Your task to perform on an android device: Search for seafood restaurants on Google Maps Image 0: 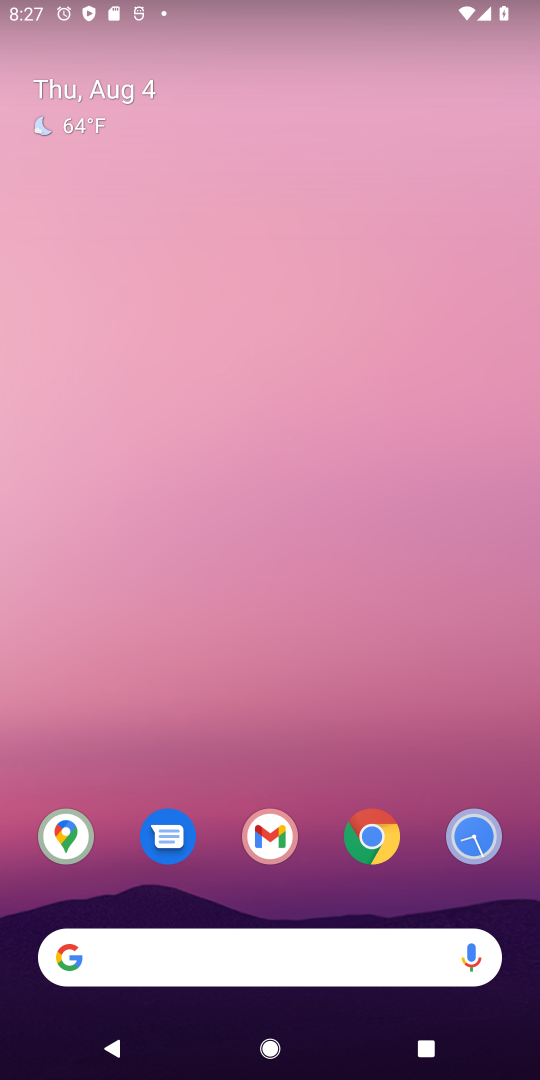
Step 0: click (69, 830)
Your task to perform on an android device: Search for seafood restaurants on Google Maps Image 1: 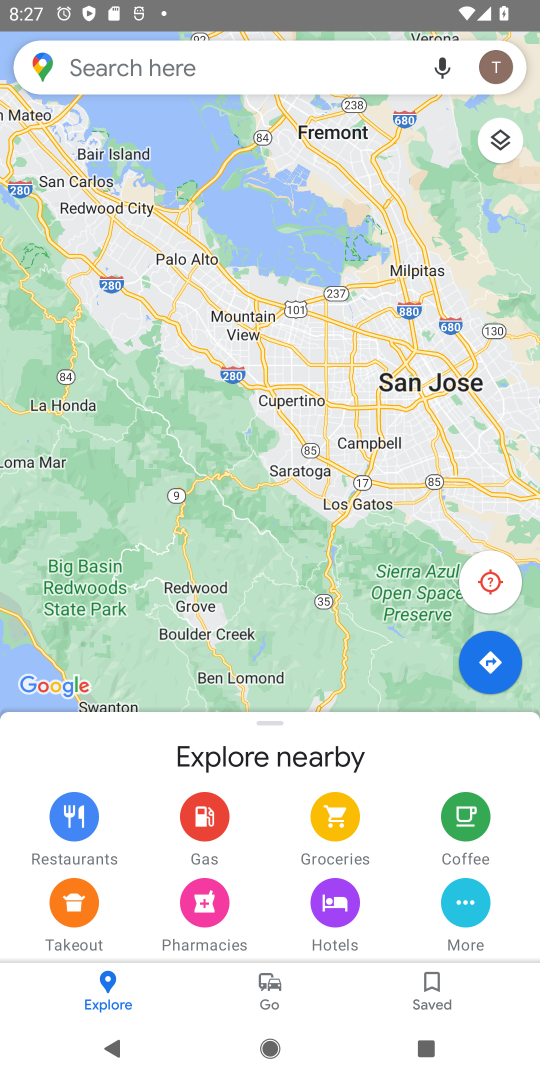
Step 1: click (162, 78)
Your task to perform on an android device: Search for seafood restaurants on Google Maps Image 2: 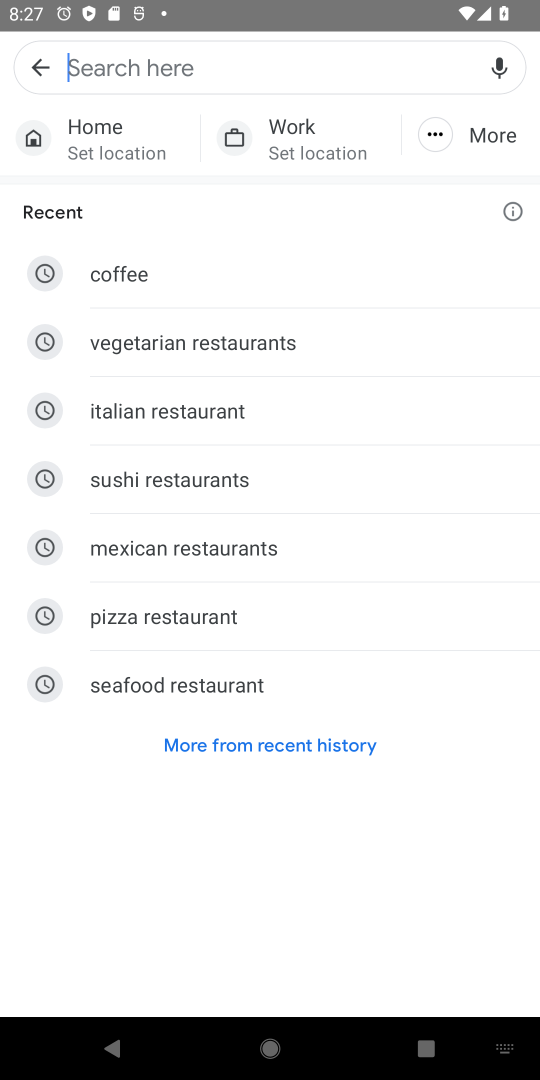
Step 2: click (119, 691)
Your task to perform on an android device: Search for seafood restaurants on Google Maps Image 3: 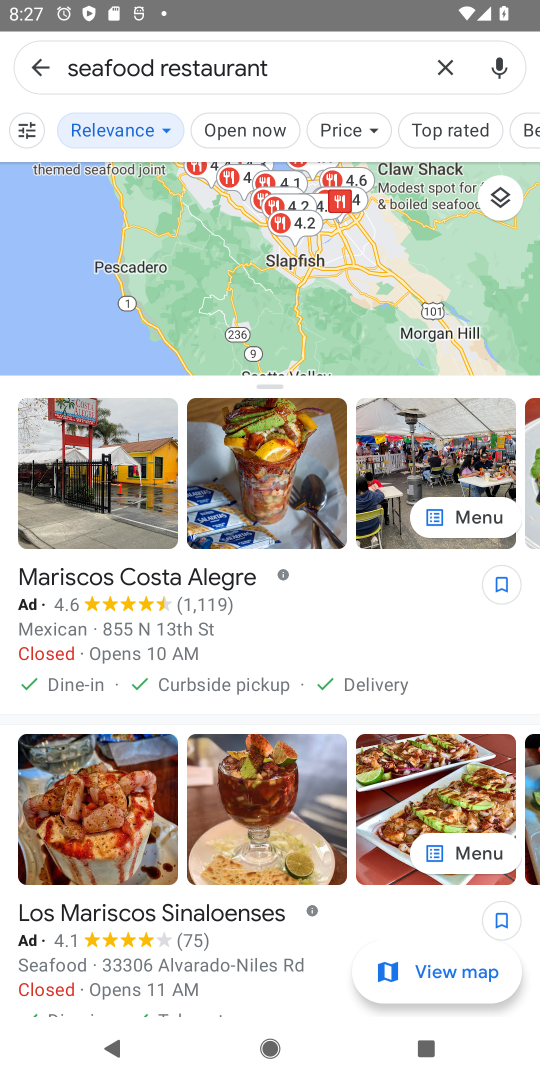
Step 3: task complete